Your task to perform on an android device: Open Youtube and go to the subscriptions tab Image 0: 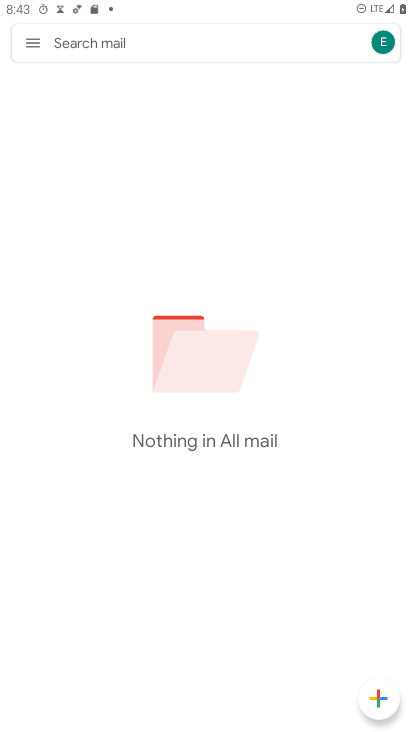
Step 0: press home button
Your task to perform on an android device: Open Youtube and go to the subscriptions tab Image 1: 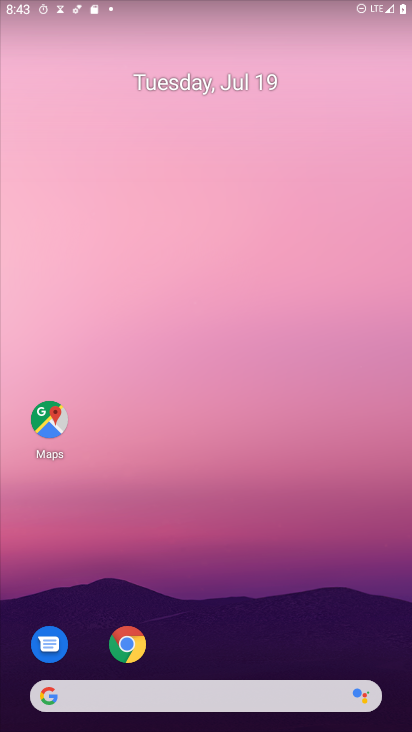
Step 1: drag from (221, 247) to (254, 153)
Your task to perform on an android device: Open Youtube and go to the subscriptions tab Image 2: 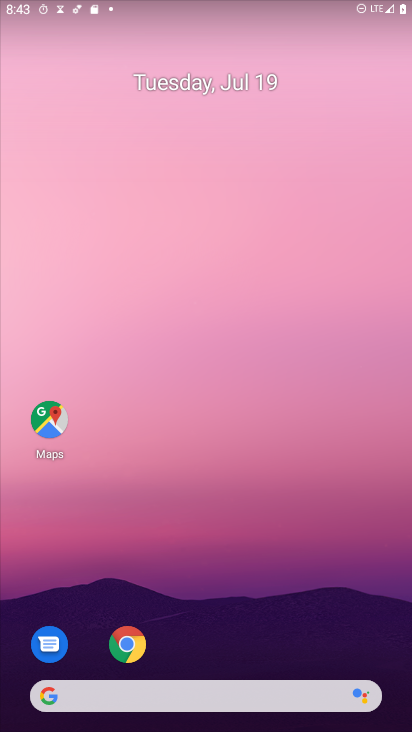
Step 2: drag from (53, 473) to (150, 136)
Your task to perform on an android device: Open Youtube and go to the subscriptions tab Image 3: 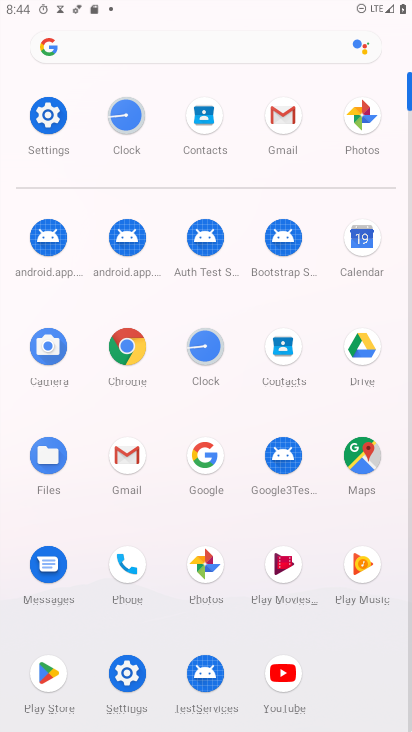
Step 3: click (293, 672)
Your task to perform on an android device: Open Youtube and go to the subscriptions tab Image 4: 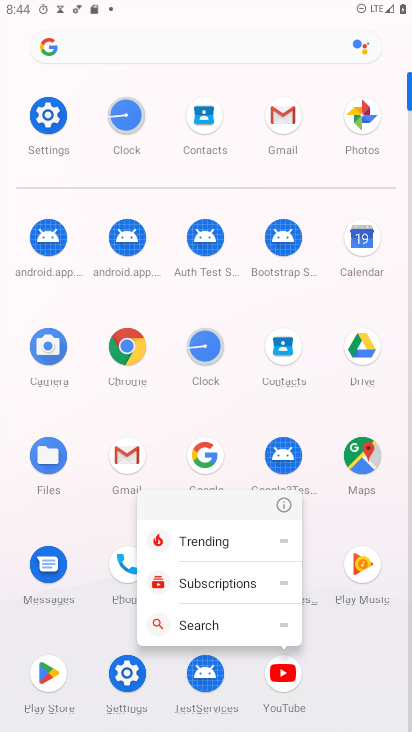
Step 4: click (285, 679)
Your task to perform on an android device: Open Youtube and go to the subscriptions tab Image 5: 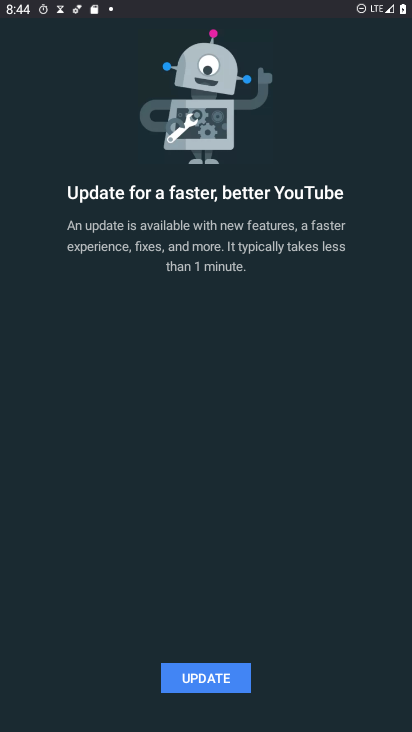
Step 5: click (196, 673)
Your task to perform on an android device: Open Youtube and go to the subscriptions tab Image 6: 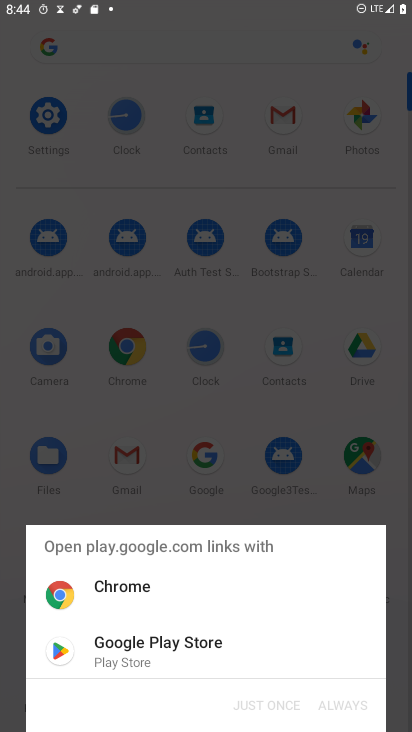
Step 6: click (136, 672)
Your task to perform on an android device: Open Youtube and go to the subscriptions tab Image 7: 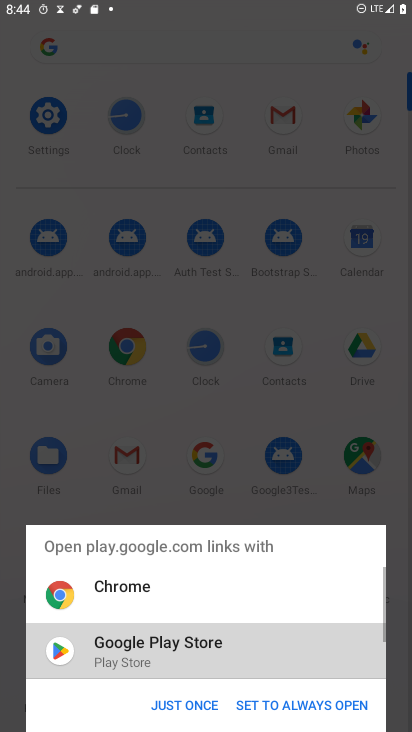
Step 7: click (143, 643)
Your task to perform on an android device: Open Youtube and go to the subscriptions tab Image 8: 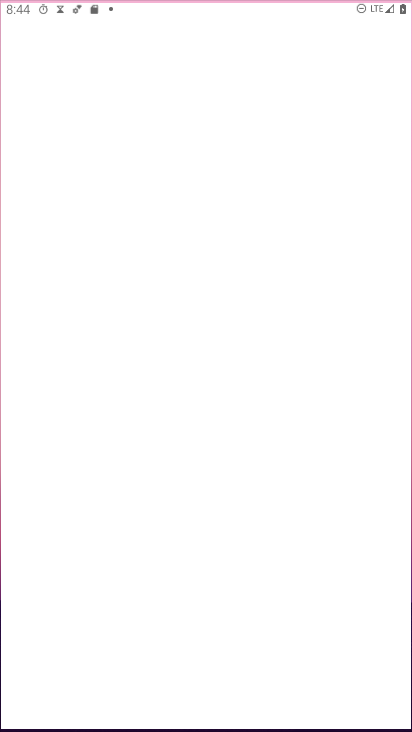
Step 8: click (154, 708)
Your task to perform on an android device: Open Youtube and go to the subscriptions tab Image 9: 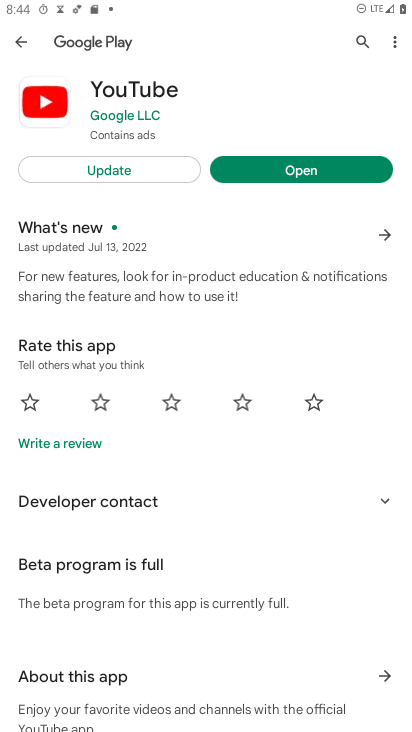
Step 9: click (250, 167)
Your task to perform on an android device: Open Youtube and go to the subscriptions tab Image 10: 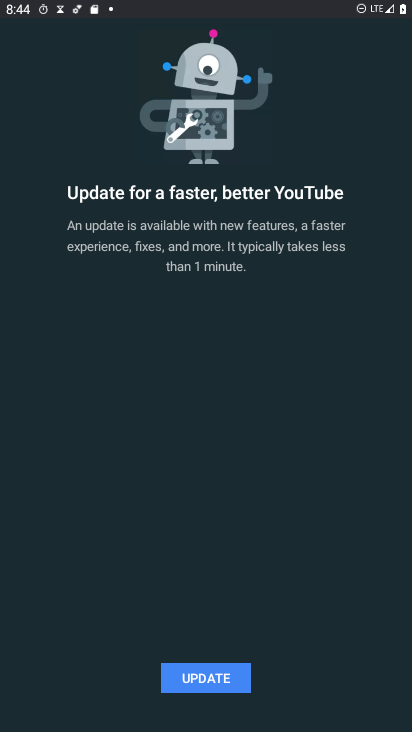
Step 10: task complete